Your task to perform on an android device: When is my next appointment? Image 0: 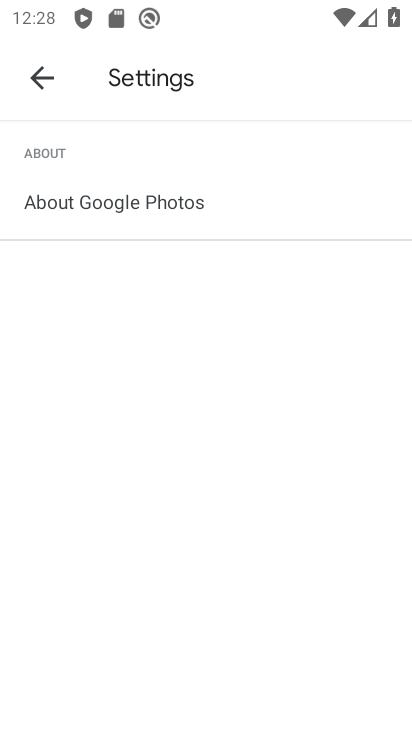
Step 0: press back button
Your task to perform on an android device: When is my next appointment? Image 1: 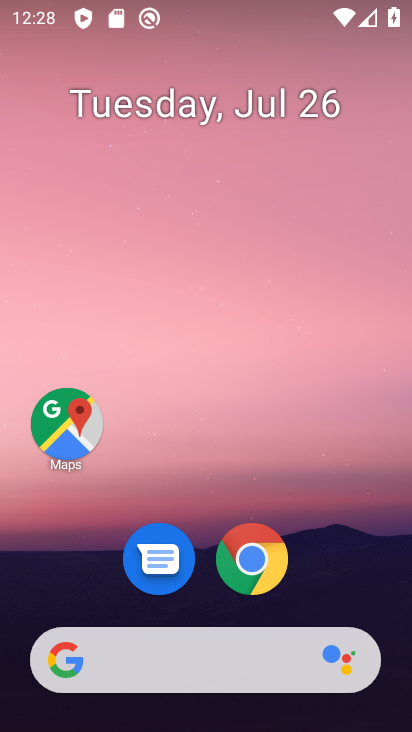
Step 1: drag from (90, 586) to (183, 79)
Your task to perform on an android device: When is my next appointment? Image 2: 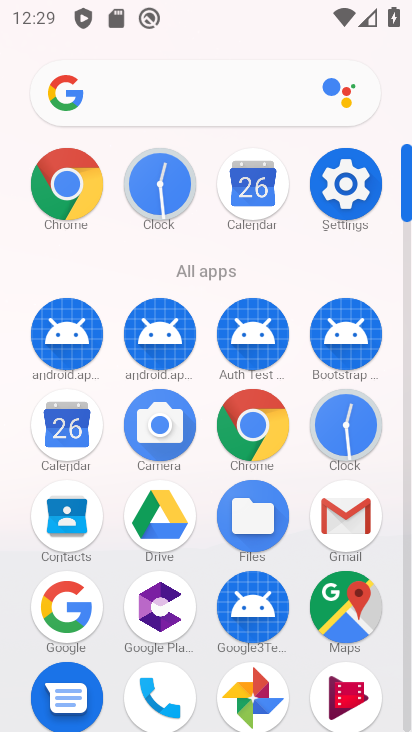
Step 2: click (73, 433)
Your task to perform on an android device: When is my next appointment? Image 3: 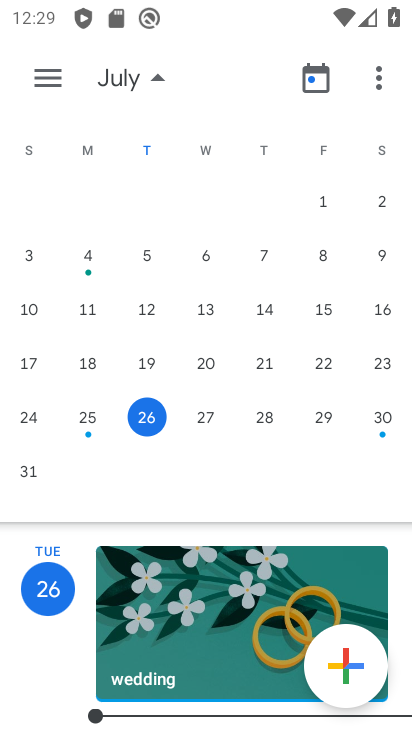
Step 3: task complete